Your task to perform on an android device: Open Yahoo.com Image 0: 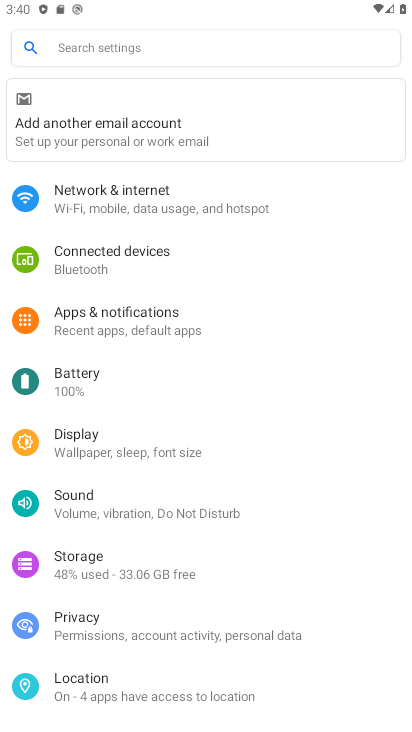
Step 0: press home button
Your task to perform on an android device: Open Yahoo.com Image 1: 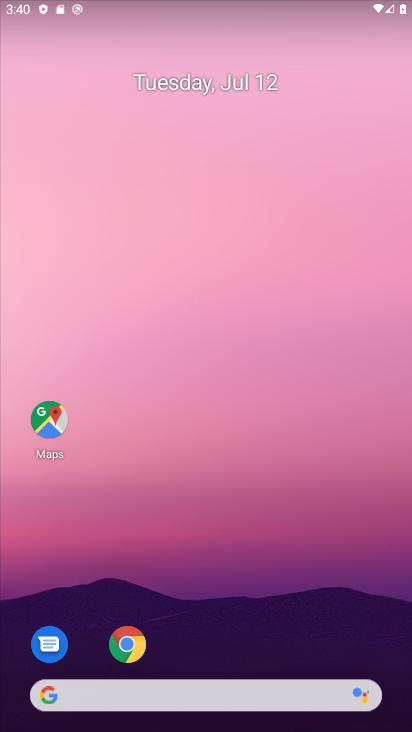
Step 1: click (123, 639)
Your task to perform on an android device: Open Yahoo.com Image 2: 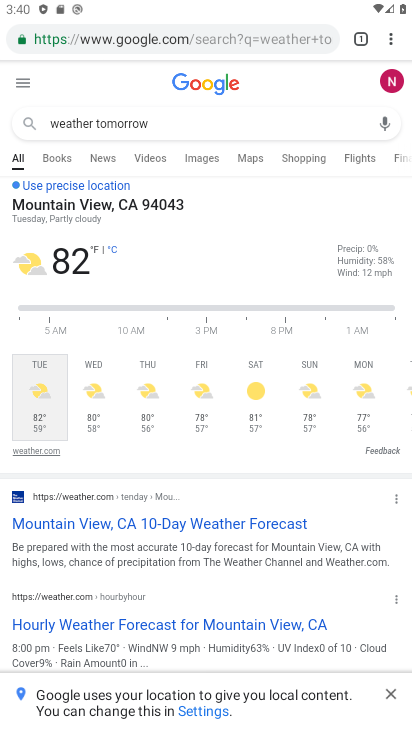
Step 2: click (200, 44)
Your task to perform on an android device: Open Yahoo.com Image 3: 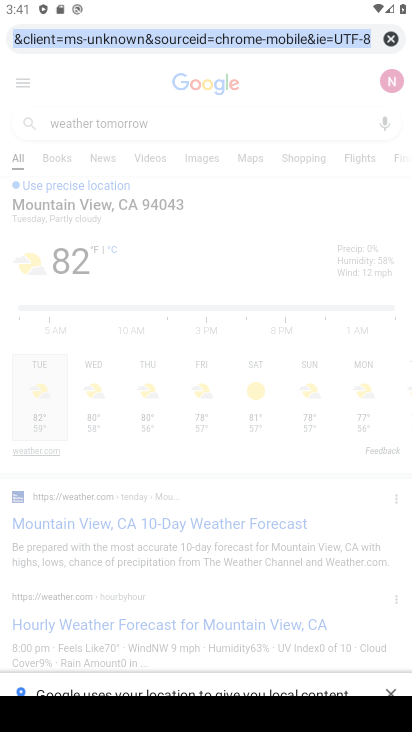
Step 3: type "yahoo.com"
Your task to perform on an android device: Open Yahoo.com Image 4: 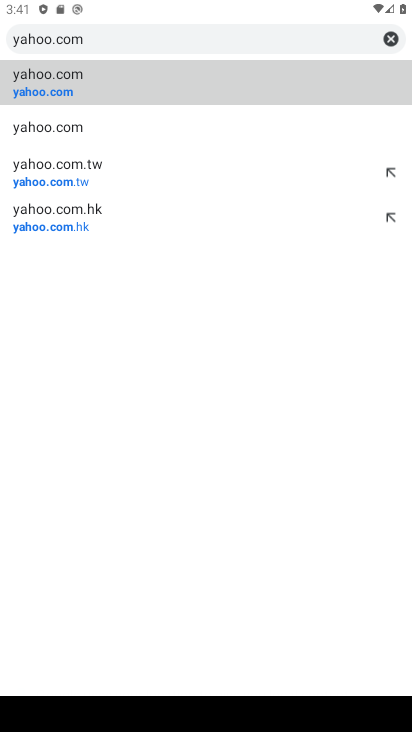
Step 4: click (178, 81)
Your task to perform on an android device: Open Yahoo.com Image 5: 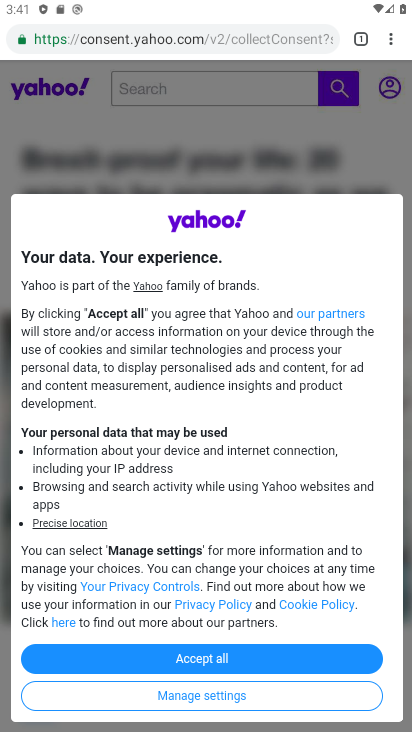
Step 5: task complete